Your task to perform on an android device: uninstall "DoorDash - Food Delivery" Image 0: 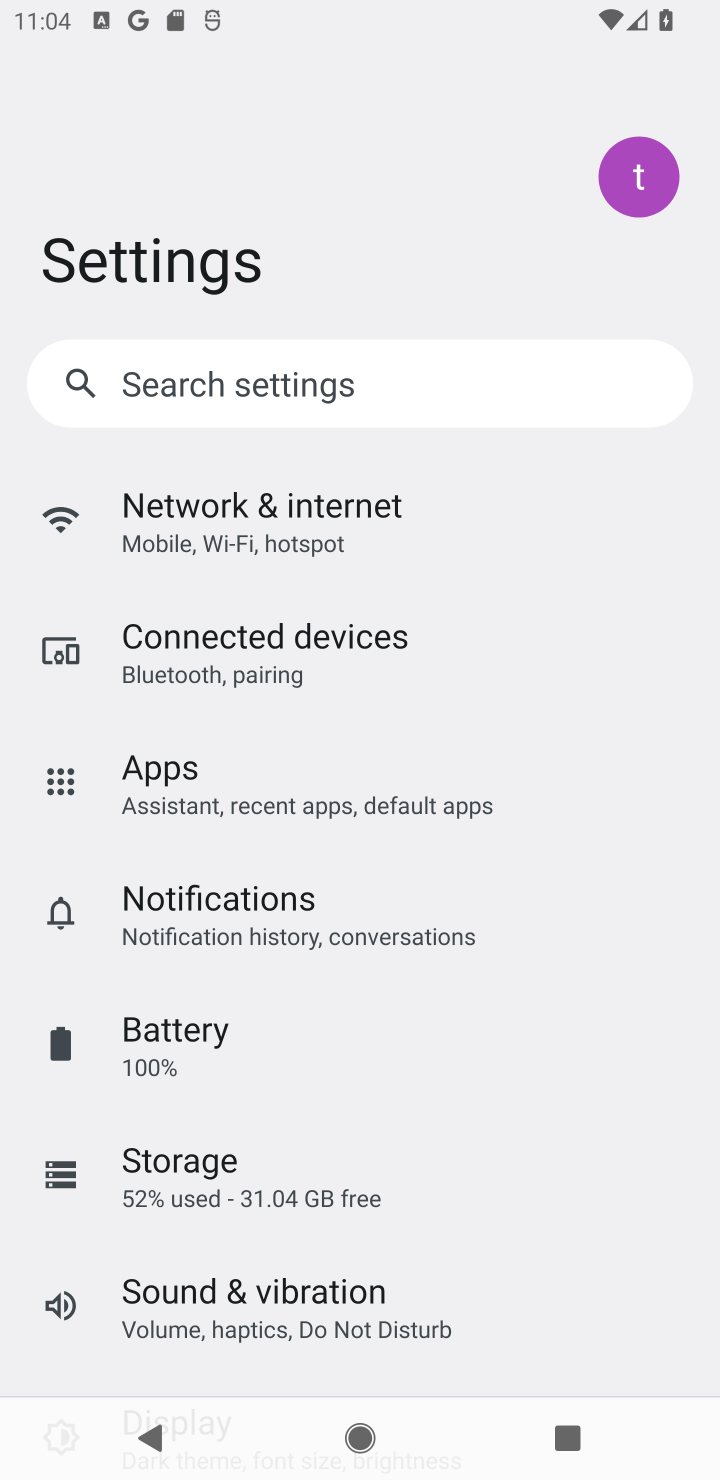
Step 0: press back button
Your task to perform on an android device: uninstall "DoorDash - Food Delivery" Image 1: 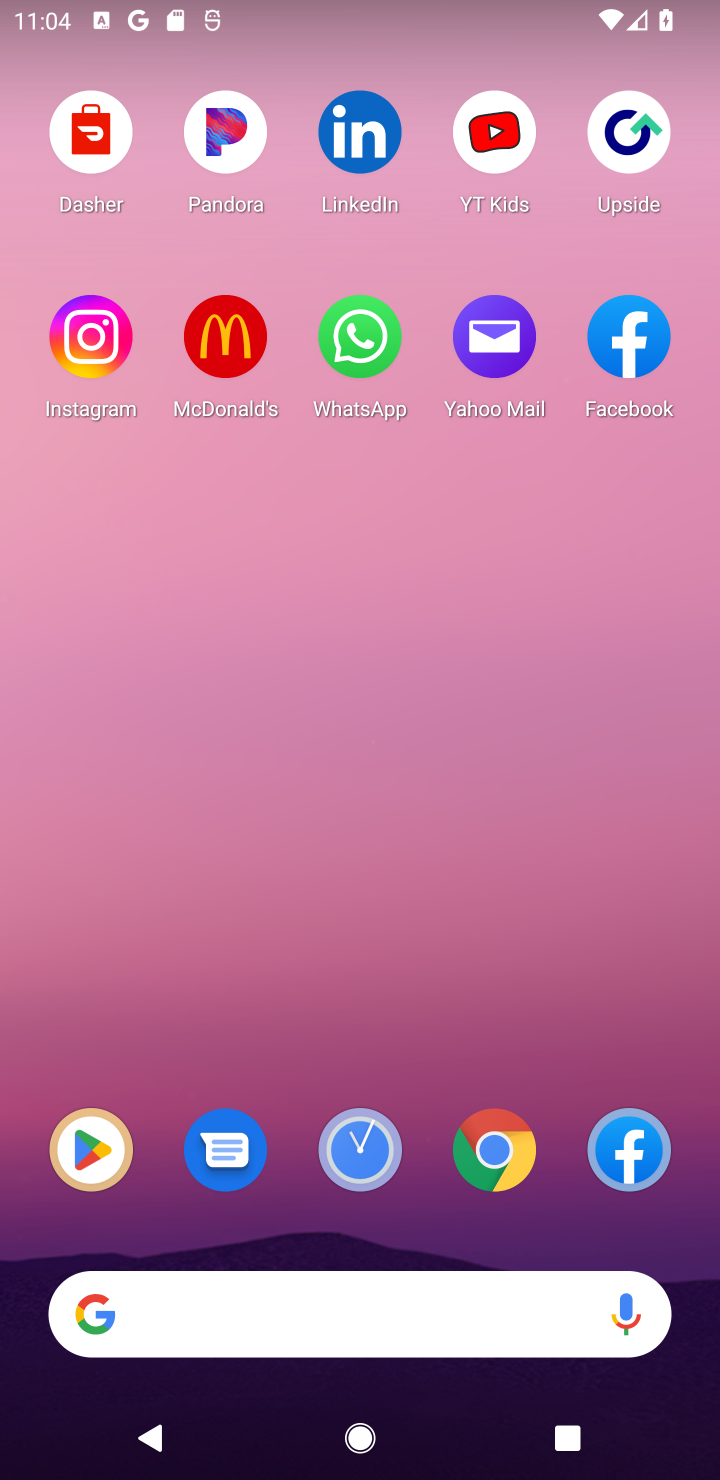
Step 1: click (102, 1163)
Your task to perform on an android device: uninstall "DoorDash - Food Delivery" Image 2: 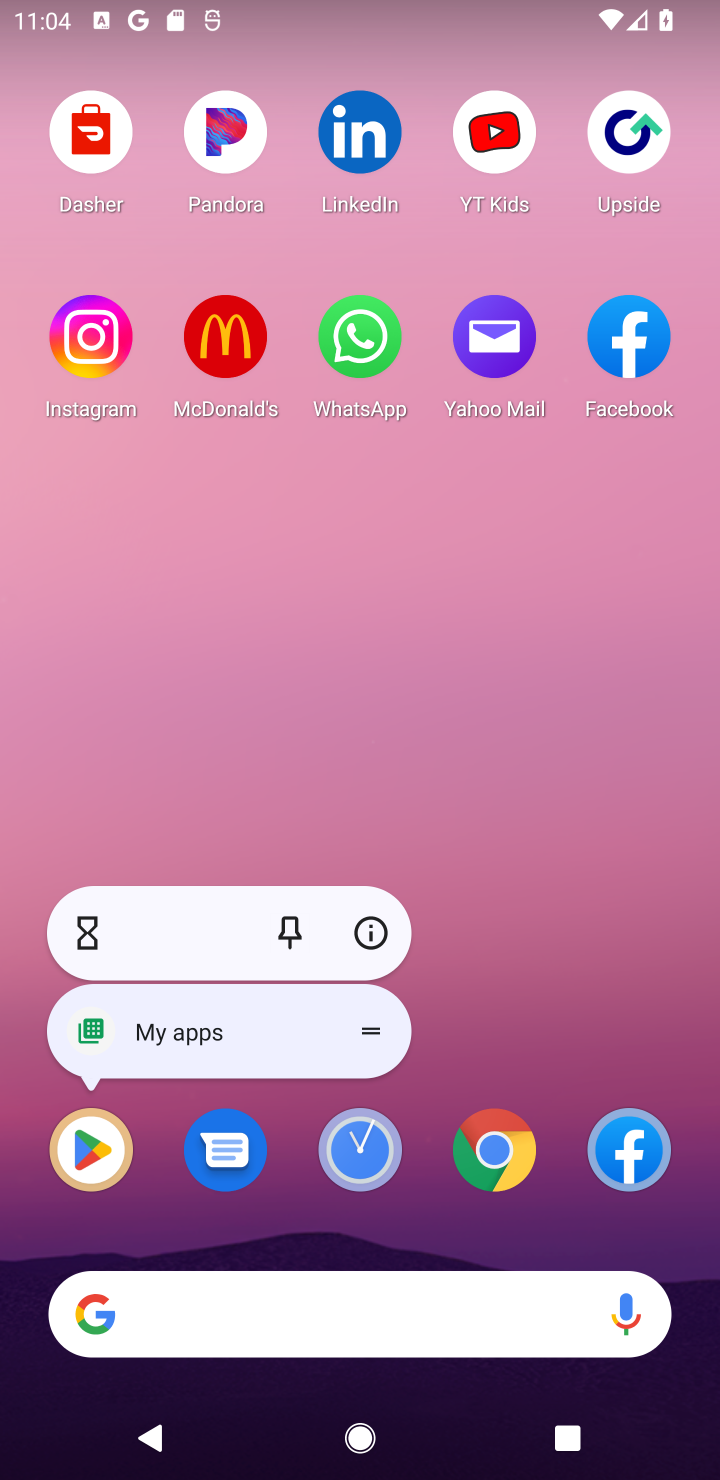
Step 2: click (86, 1139)
Your task to perform on an android device: uninstall "DoorDash - Food Delivery" Image 3: 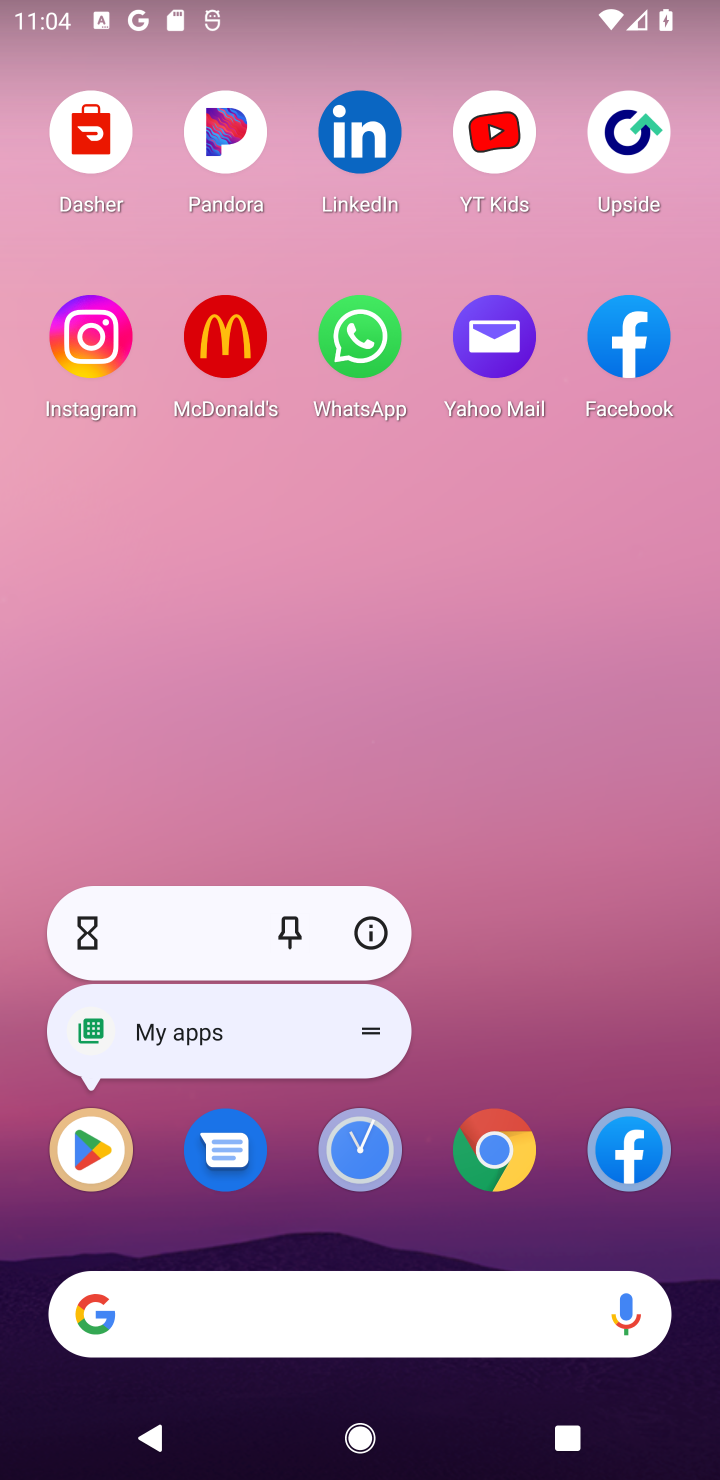
Step 3: click (97, 1144)
Your task to perform on an android device: uninstall "DoorDash - Food Delivery" Image 4: 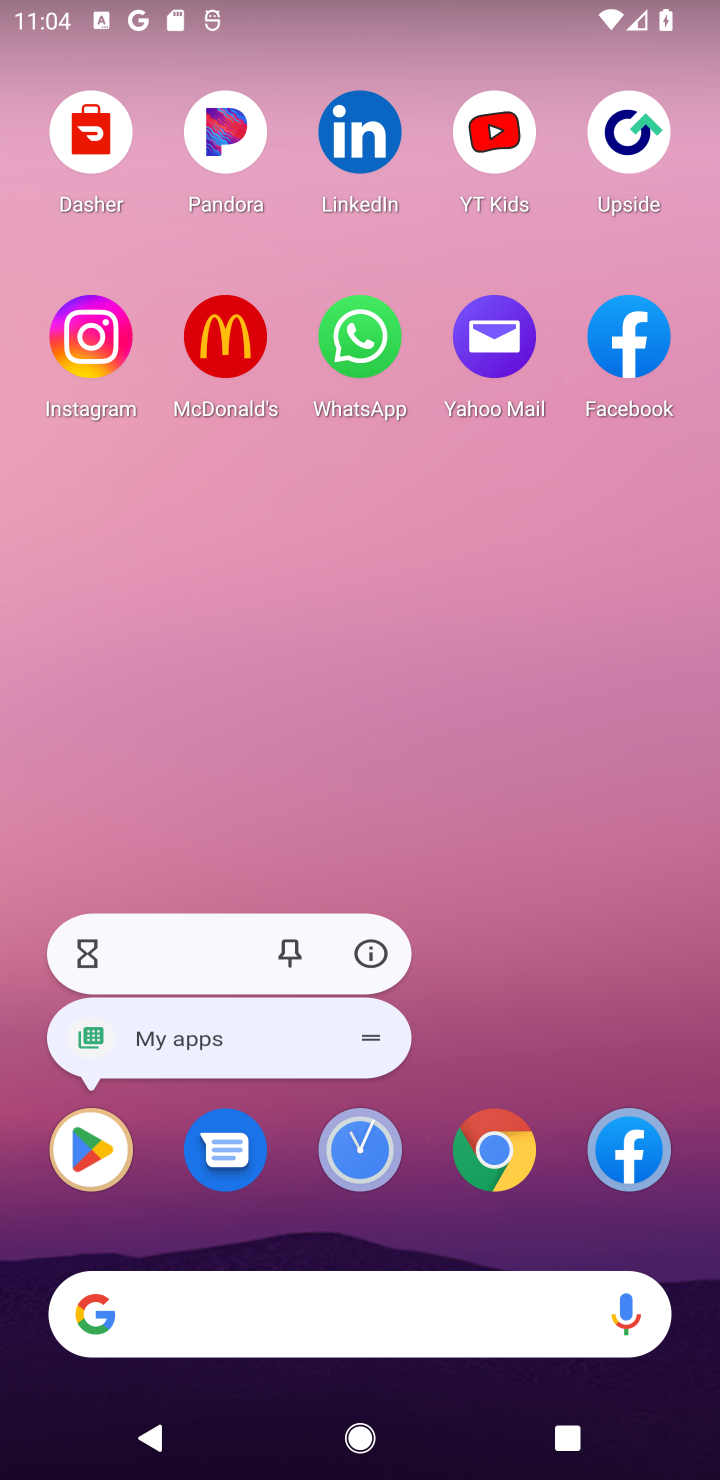
Step 4: click (97, 1144)
Your task to perform on an android device: uninstall "DoorDash - Food Delivery" Image 5: 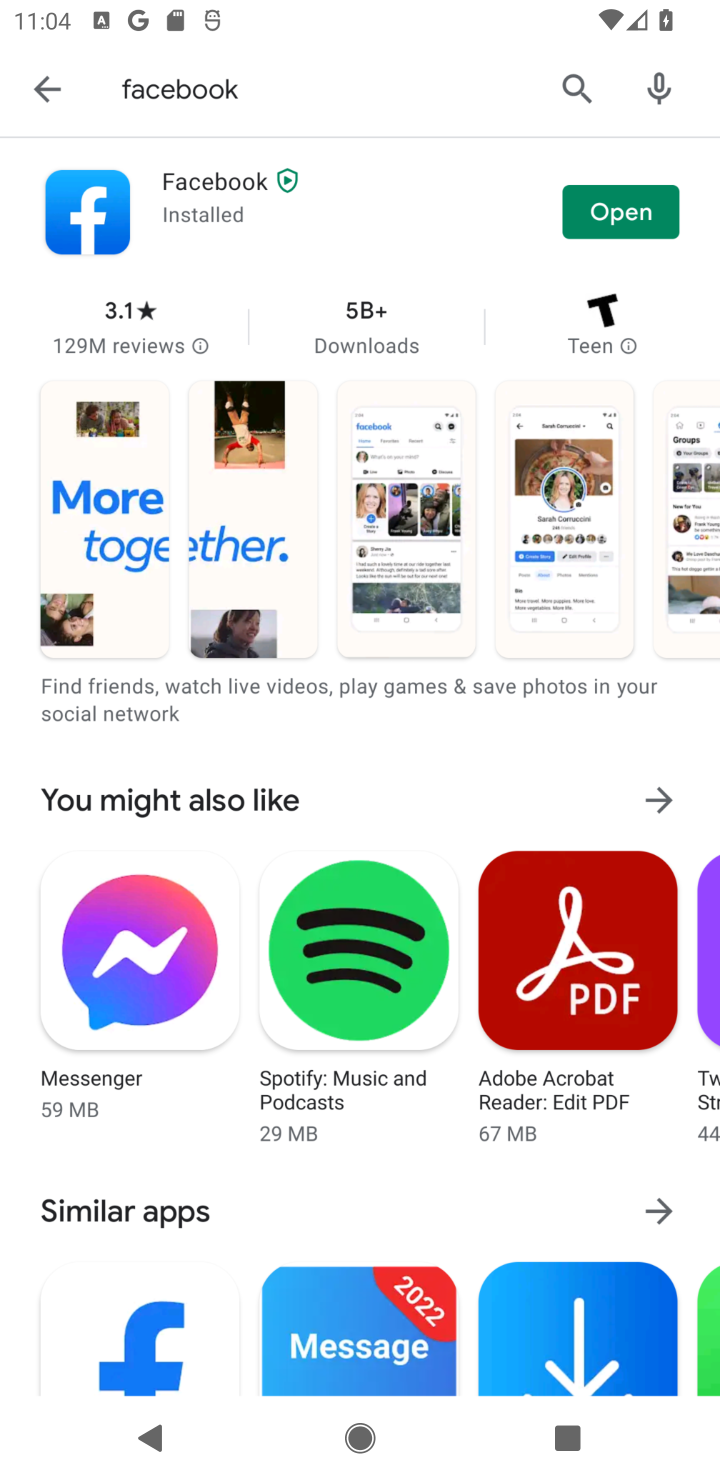
Step 5: click (91, 1167)
Your task to perform on an android device: uninstall "DoorDash - Food Delivery" Image 6: 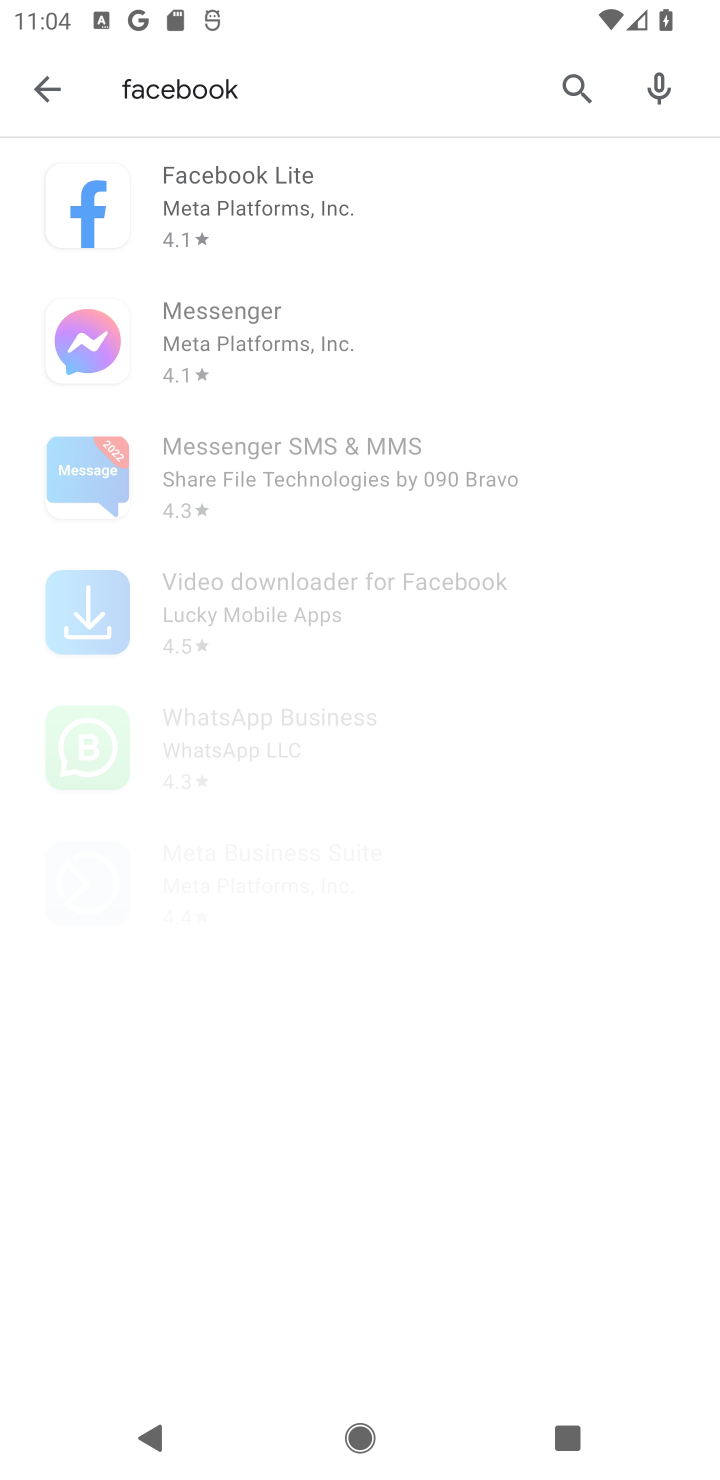
Step 6: click (574, 93)
Your task to perform on an android device: uninstall "DoorDash - Food Delivery" Image 7: 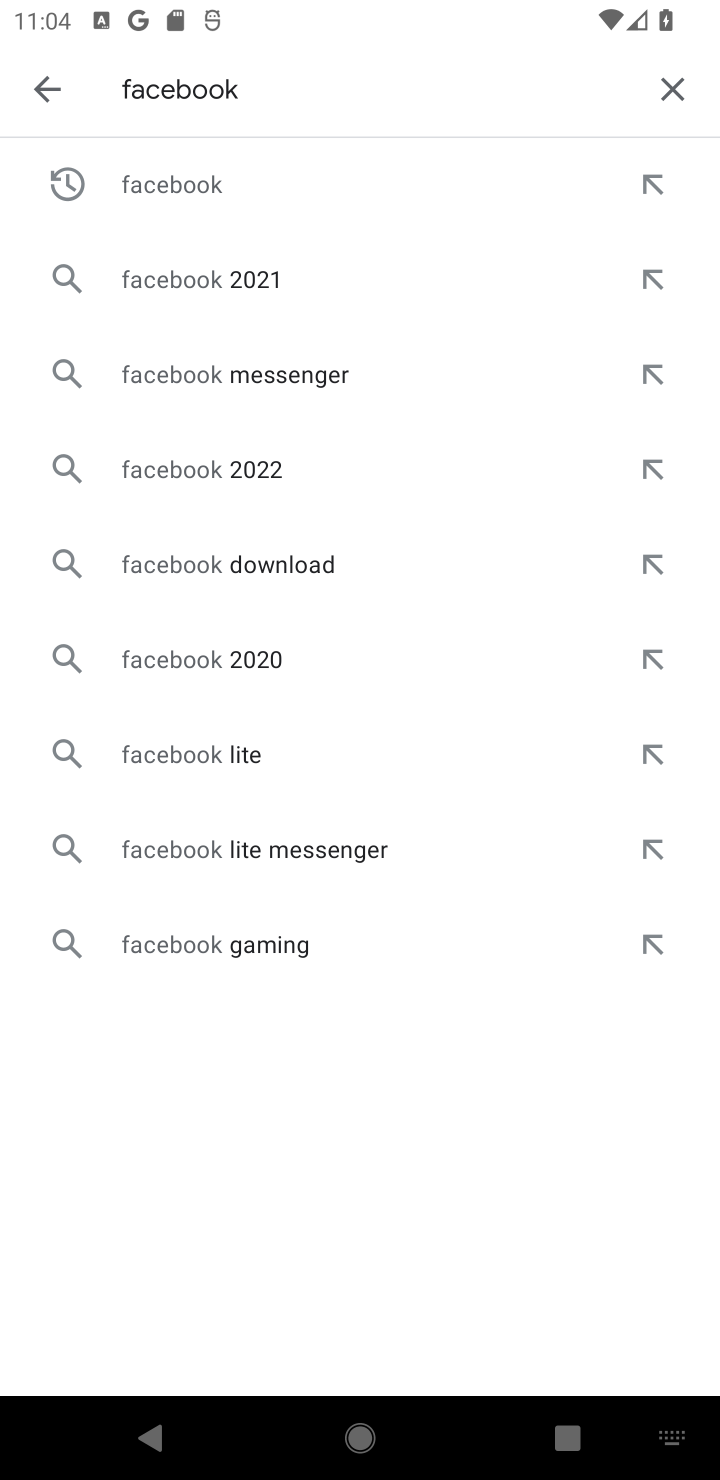
Step 7: click (687, 79)
Your task to perform on an android device: uninstall "DoorDash - Food Delivery" Image 8: 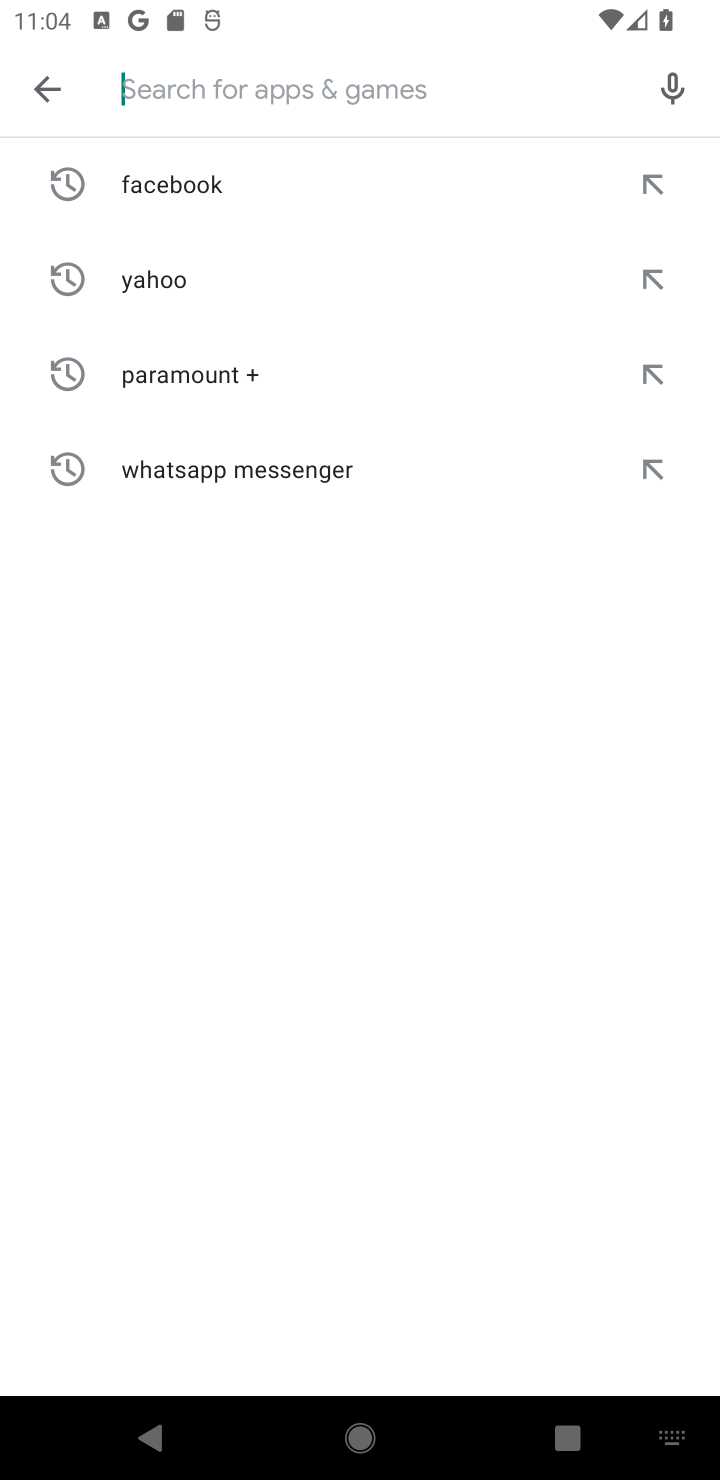
Step 8: click (207, 86)
Your task to perform on an android device: uninstall "DoorDash - Food Delivery" Image 9: 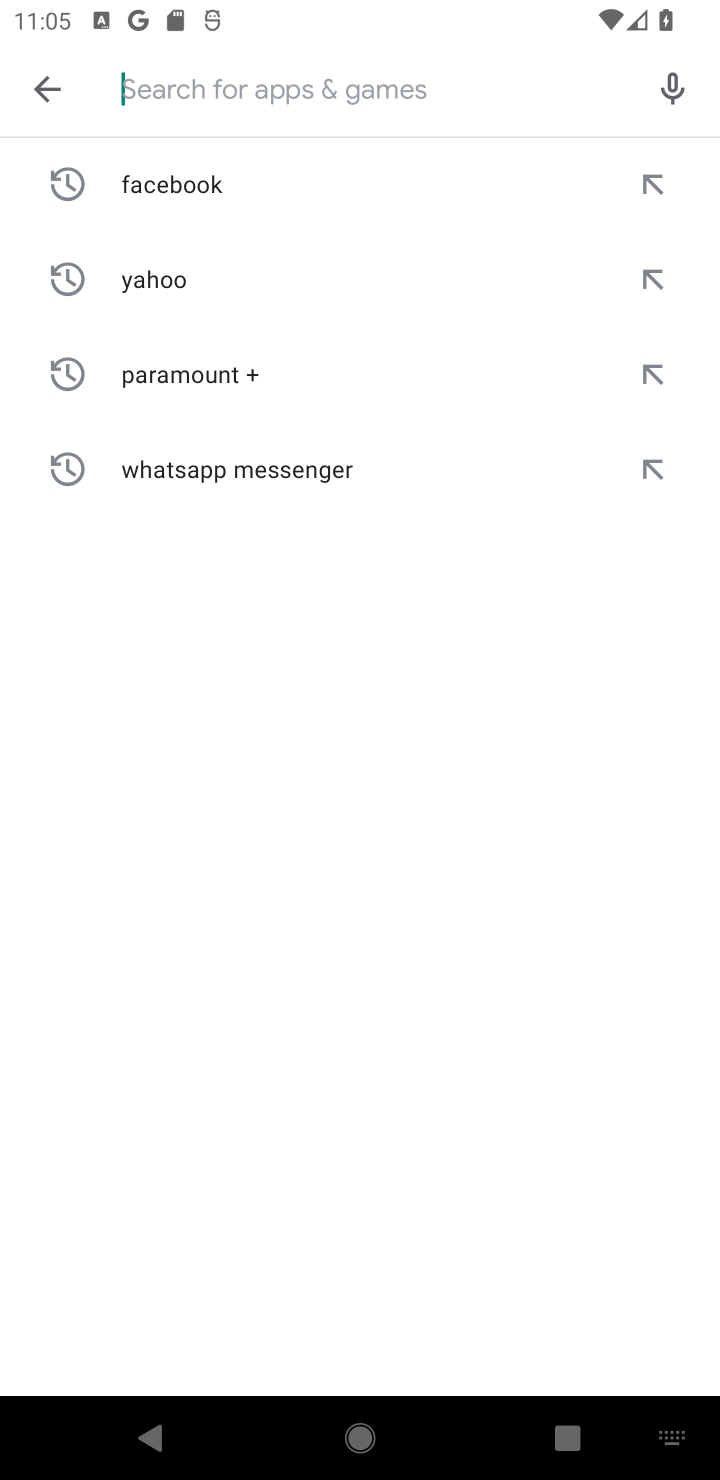
Step 9: type "door dash"
Your task to perform on an android device: uninstall "DoorDash - Food Delivery" Image 10: 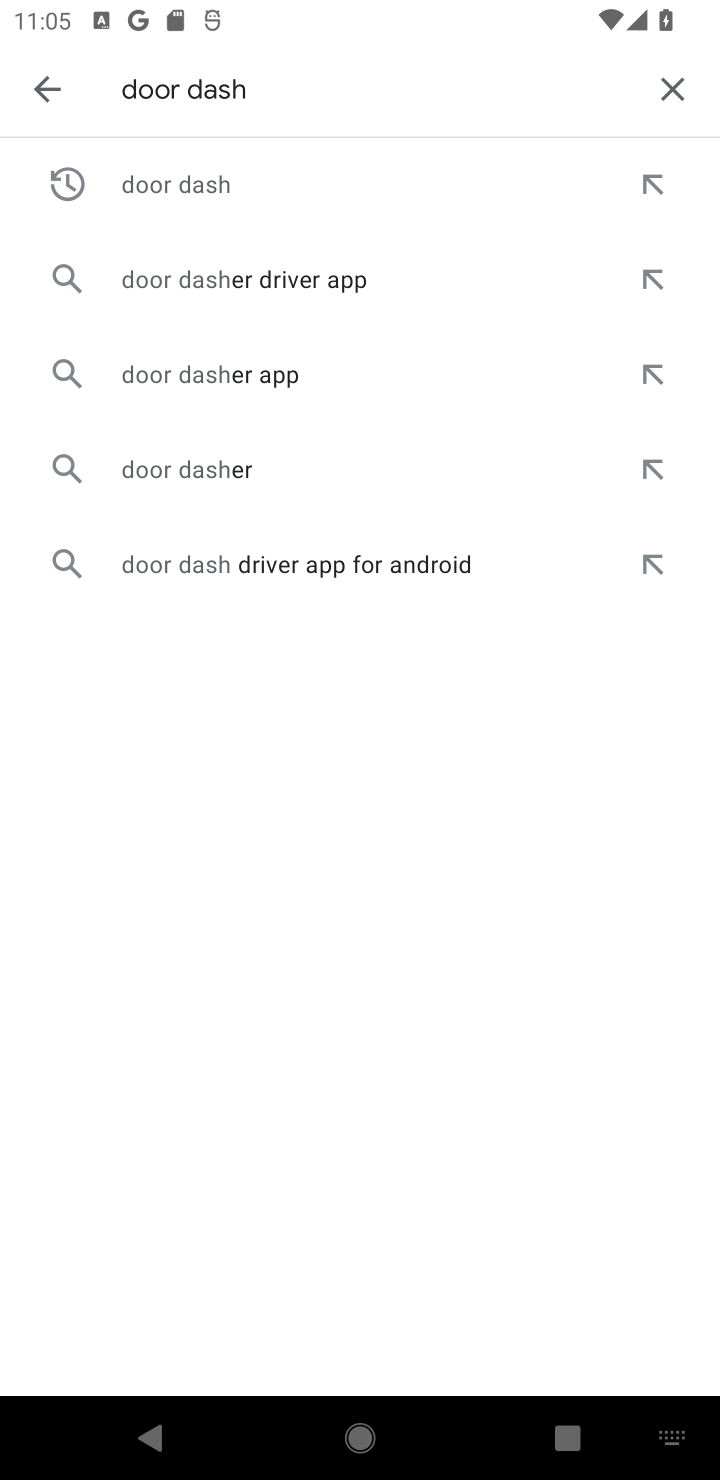
Step 10: click (175, 196)
Your task to perform on an android device: uninstall "DoorDash - Food Delivery" Image 11: 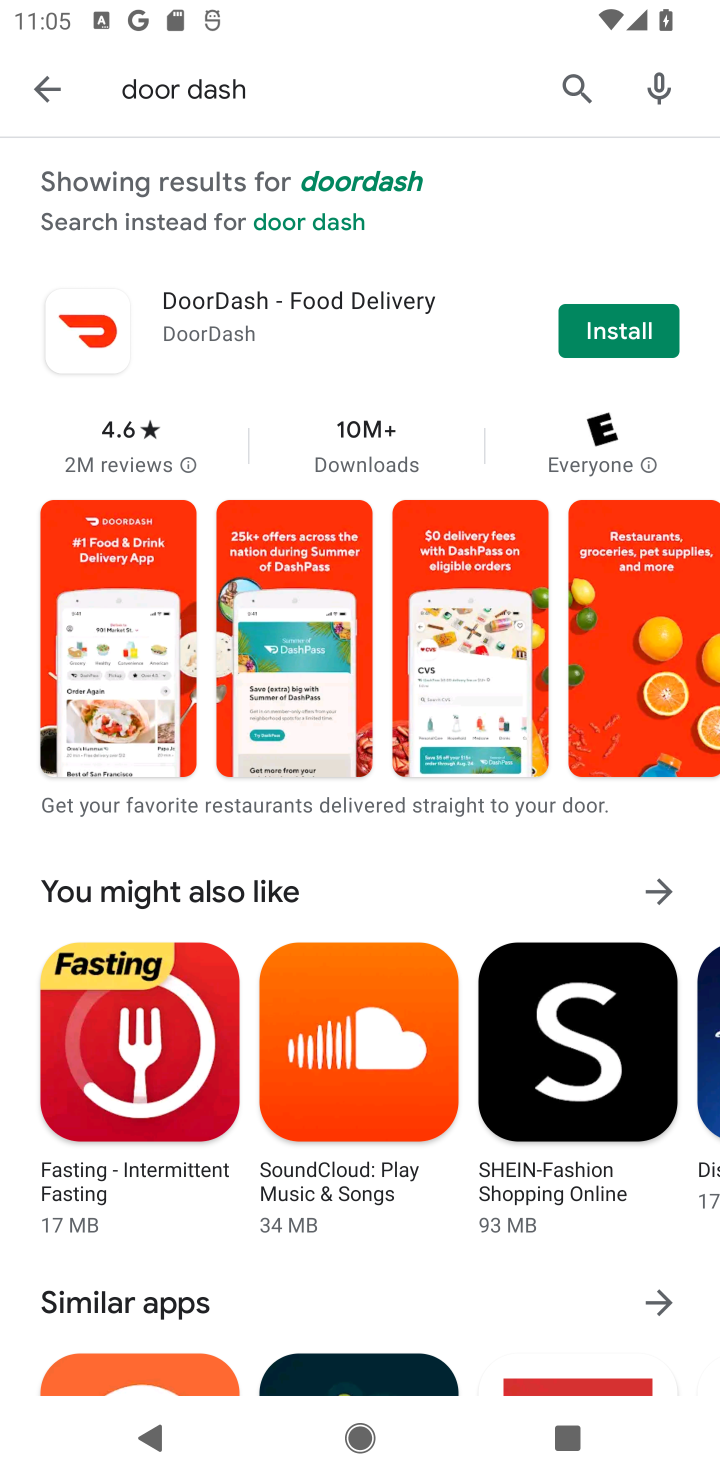
Step 11: task complete